Your task to perform on an android device: turn on showing notifications on the lock screen Image 0: 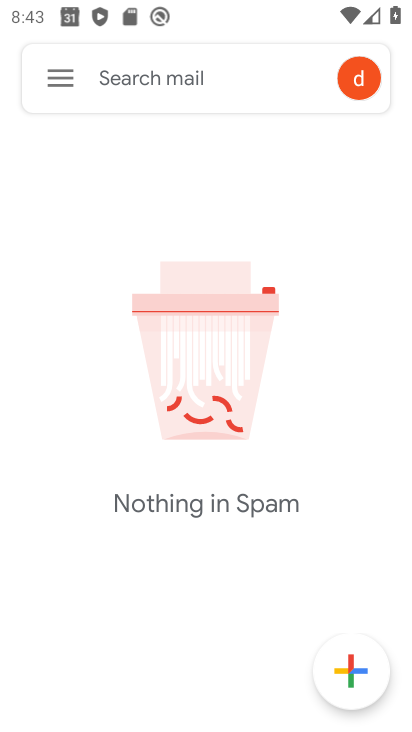
Step 0: press home button
Your task to perform on an android device: turn on showing notifications on the lock screen Image 1: 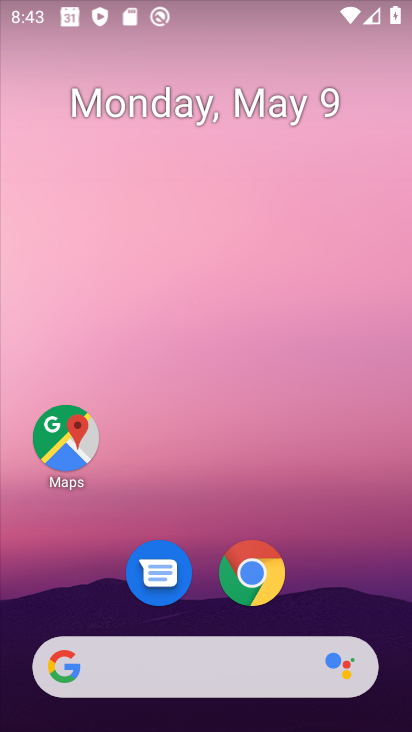
Step 1: drag from (330, 608) to (284, 95)
Your task to perform on an android device: turn on showing notifications on the lock screen Image 2: 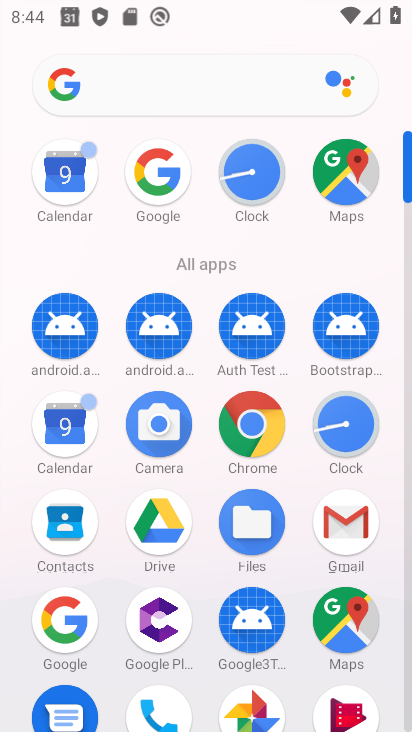
Step 2: drag from (205, 680) to (231, 422)
Your task to perform on an android device: turn on showing notifications on the lock screen Image 3: 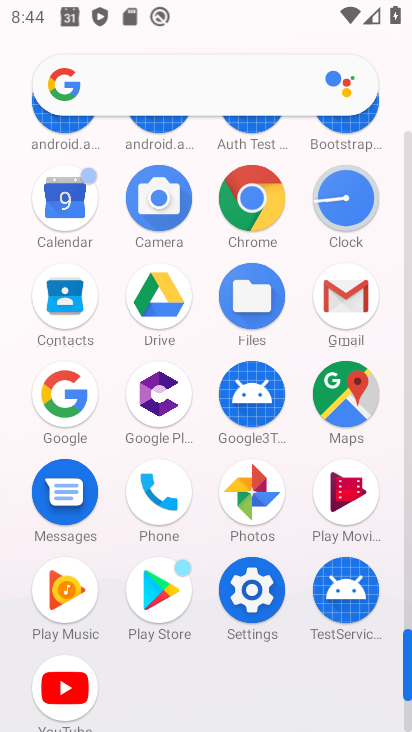
Step 3: click (241, 593)
Your task to perform on an android device: turn on showing notifications on the lock screen Image 4: 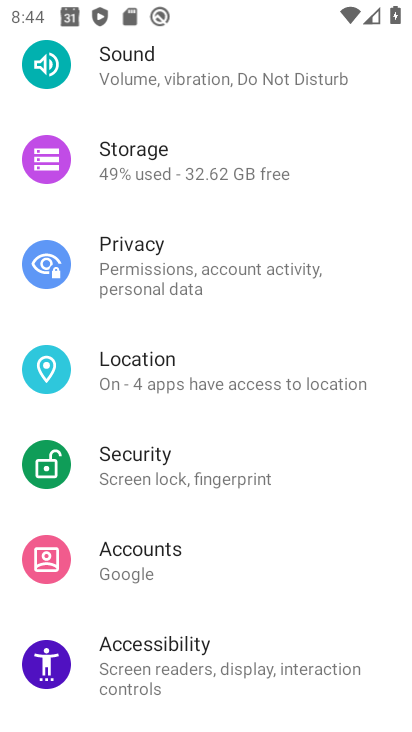
Step 4: drag from (226, 378) to (241, 457)
Your task to perform on an android device: turn on showing notifications on the lock screen Image 5: 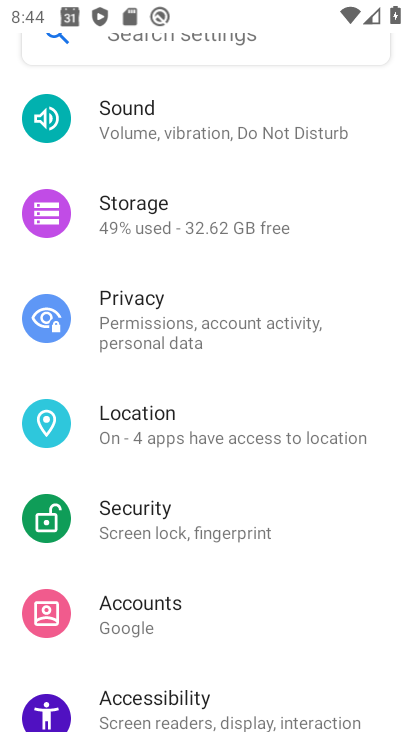
Step 5: drag from (229, 296) to (272, 448)
Your task to perform on an android device: turn on showing notifications on the lock screen Image 6: 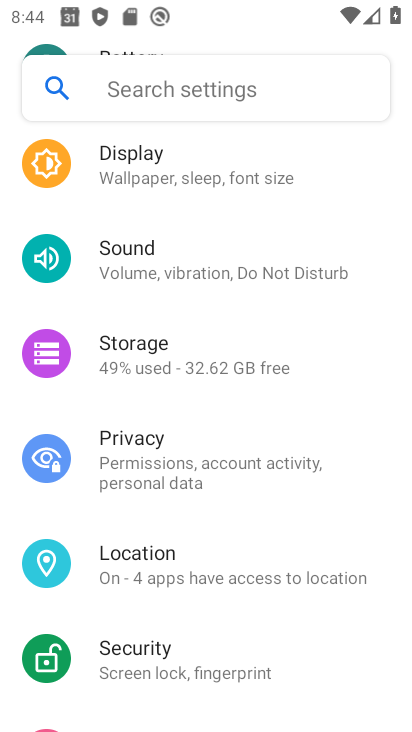
Step 6: drag from (229, 278) to (265, 401)
Your task to perform on an android device: turn on showing notifications on the lock screen Image 7: 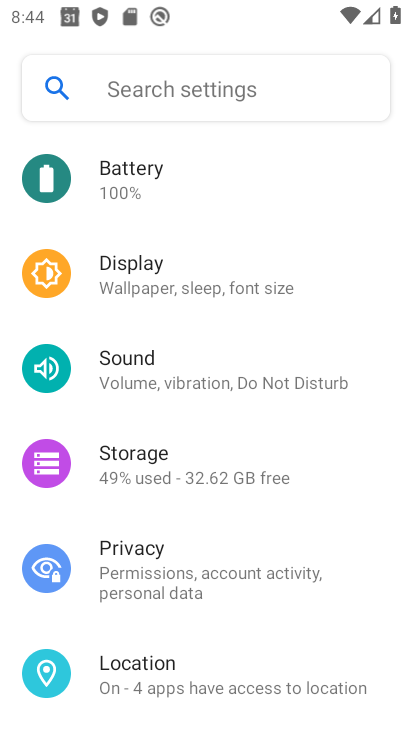
Step 7: drag from (218, 290) to (245, 408)
Your task to perform on an android device: turn on showing notifications on the lock screen Image 8: 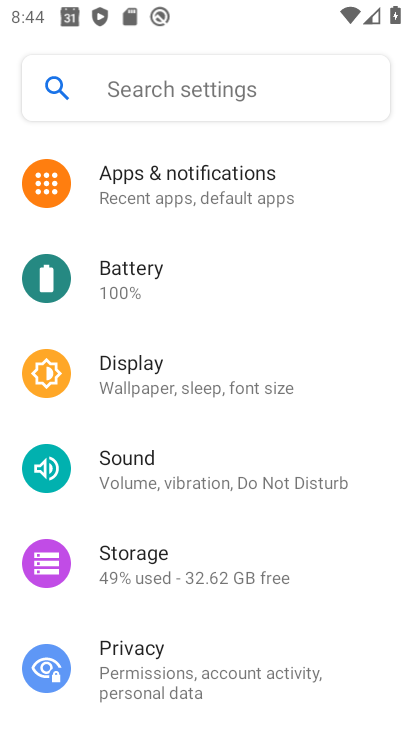
Step 8: click (203, 195)
Your task to perform on an android device: turn on showing notifications on the lock screen Image 9: 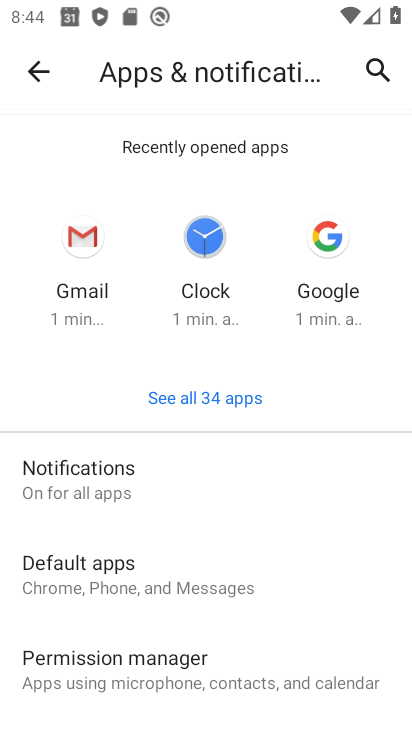
Step 9: click (203, 462)
Your task to perform on an android device: turn on showing notifications on the lock screen Image 10: 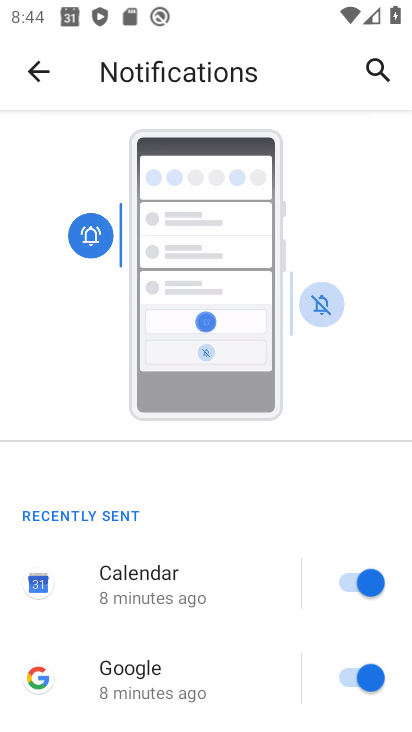
Step 10: drag from (225, 617) to (216, 427)
Your task to perform on an android device: turn on showing notifications on the lock screen Image 11: 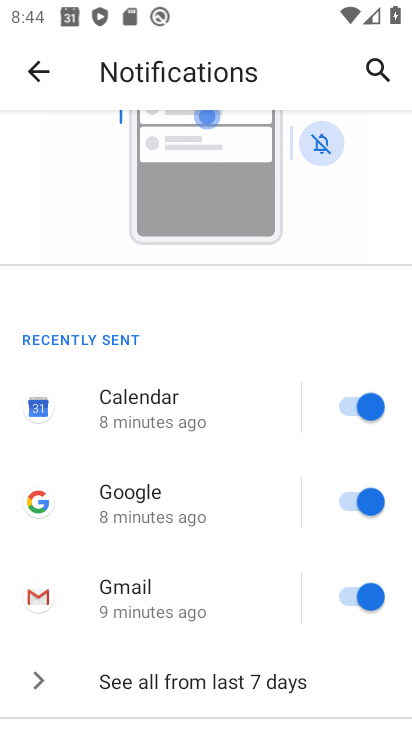
Step 11: drag from (215, 662) to (208, 442)
Your task to perform on an android device: turn on showing notifications on the lock screen Image 12: 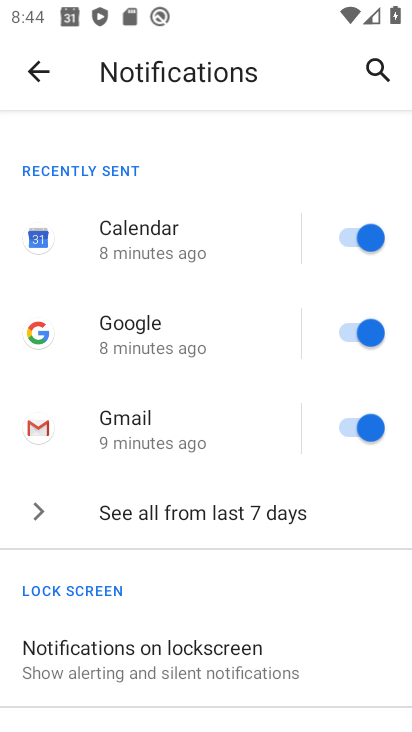
Step 12: click (204, 657)
Your task to perform on an android device: turn on showing notifications on the lock screen Image 13: 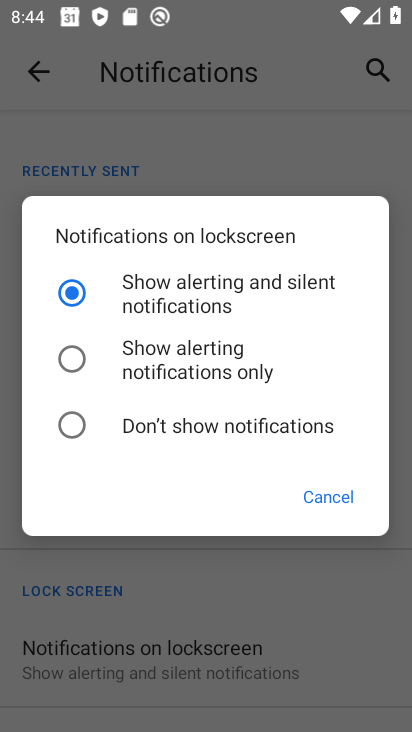
Step 13: click (265, 290)
Your task to perform on an android device: turn on showing notifications on the lock screen Image 14: 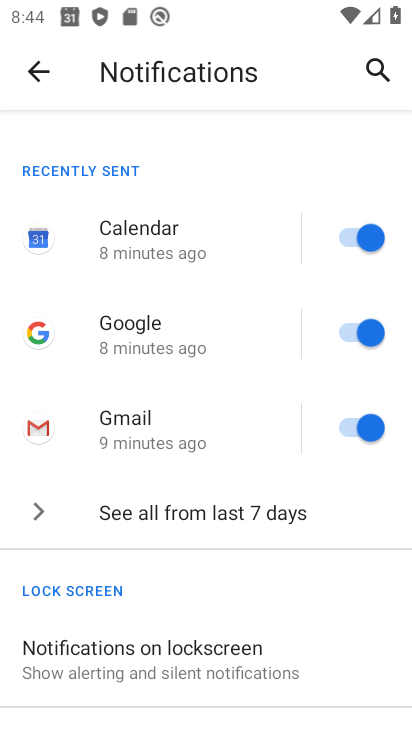
Step 14: task complete